Your task to perform on an android device: choose inbox layout in the gmail app Image 0: 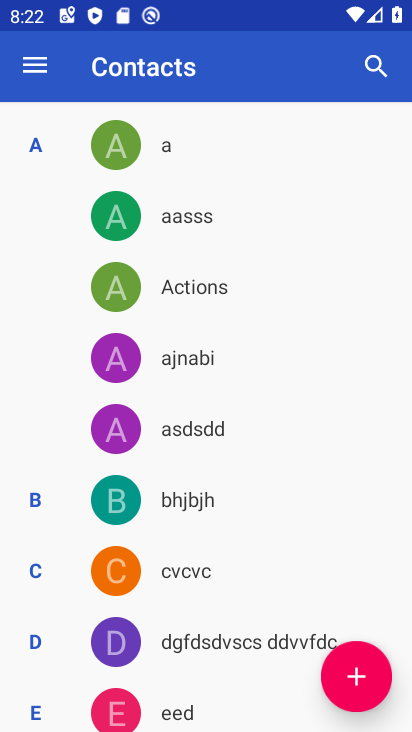
Step 0: press home button
Your task to perform on an android device: choose inbox layout in the gmail app Image 1: 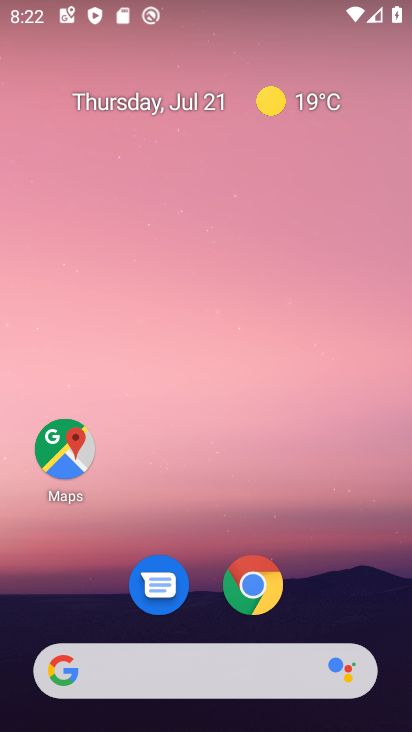
Step 1: drag from (317, 574) to (348, 62)
Your task to perform on an android device: choose inbox layout in the gmail app Image 2: 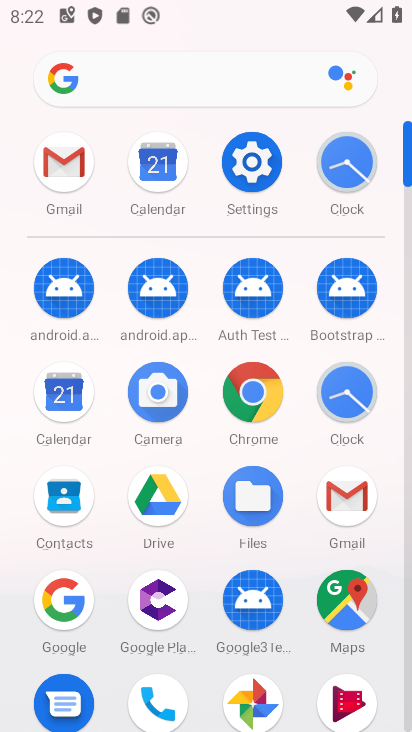
Step 2: click (63, 151)
Your task to perform on an android device: choose inbox layout in the gmail app Image 3: 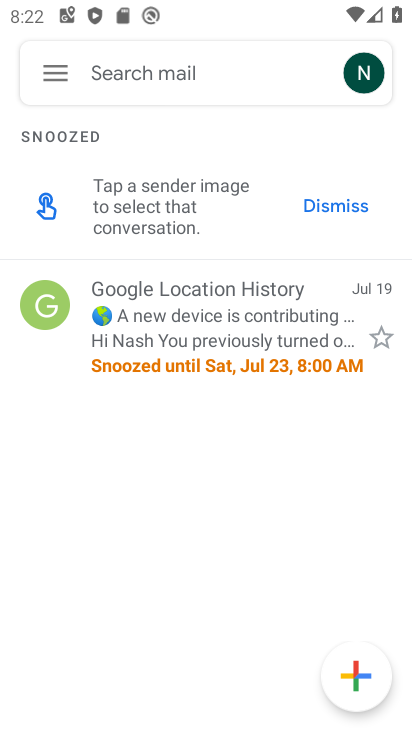
Step 3: click (55, 64)
Your task to perform on an android device: choose inbox layout in the gmail app Image 4: 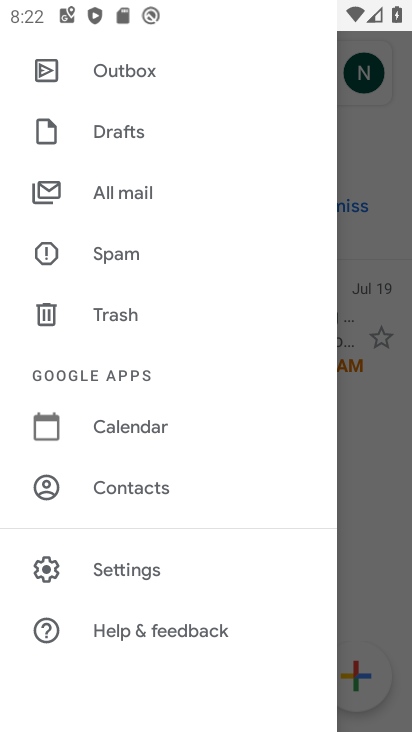
Step 4: click (147, 567)
Your task to perform on an android device: choose inbox layout in the gmail app Image 5: 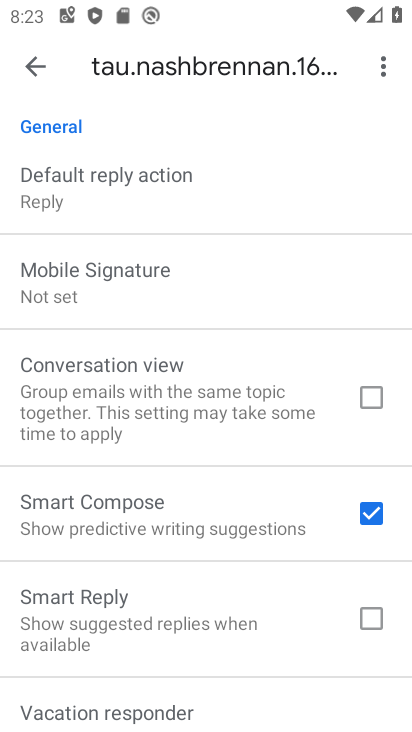
Step 5: drag from (224, 297) to (261, 622)
Your task to perform on an android device: choose inbox layout in the gmail app Image 6: 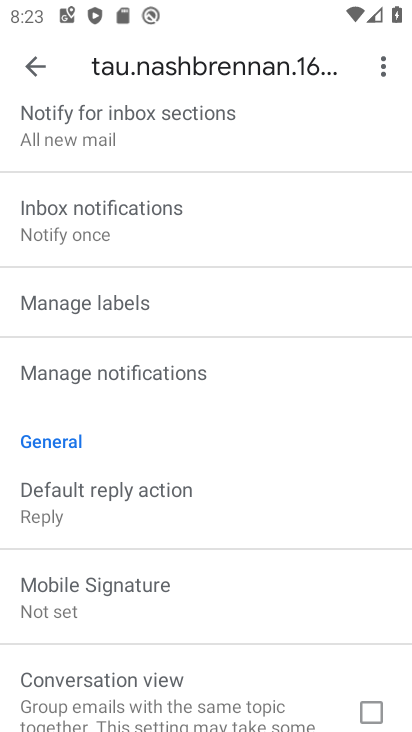
Step 6: drag from (214, 239) to (206, 623)
Your task to perform on an android device: choose inbox layout in the gmail app Image 7: 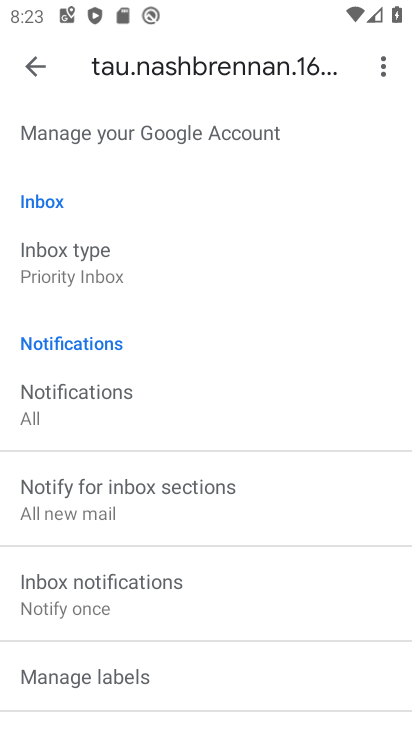
Step 7: click (82, 255)
Your task to perform on an android device: choose inbox layout in the gmail app Image 8: 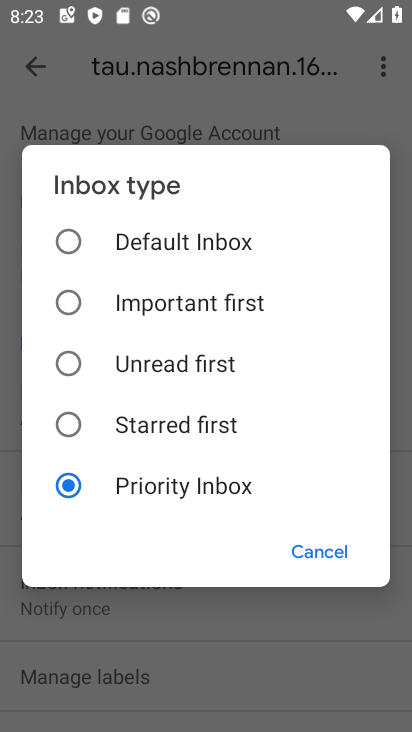
Step 8: click (68, 228)
Your task to perform on an android device: choose inbox layout in the gmail app Image 9: 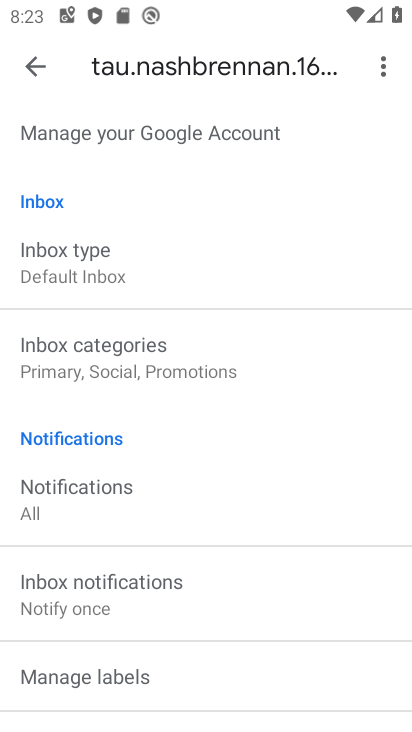
Step 9: task complete